Your task to perform on an android device: add a label to a message in the gmail app Image 0: 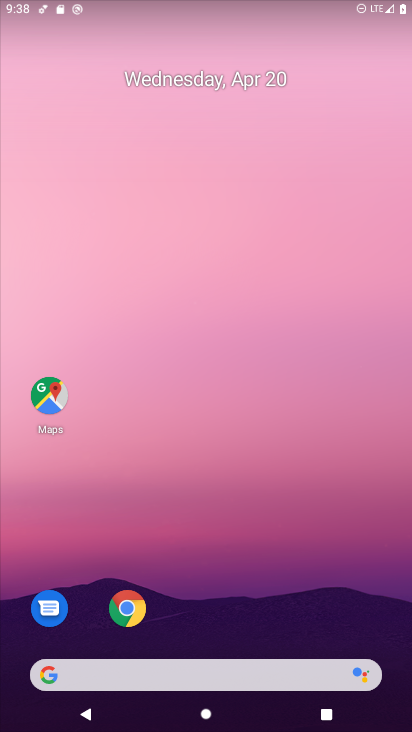
Step 0: drag from (194, 626) to (291, 3)
Your task to perform on an android device: add a label to a message in the gmail app Image 1: 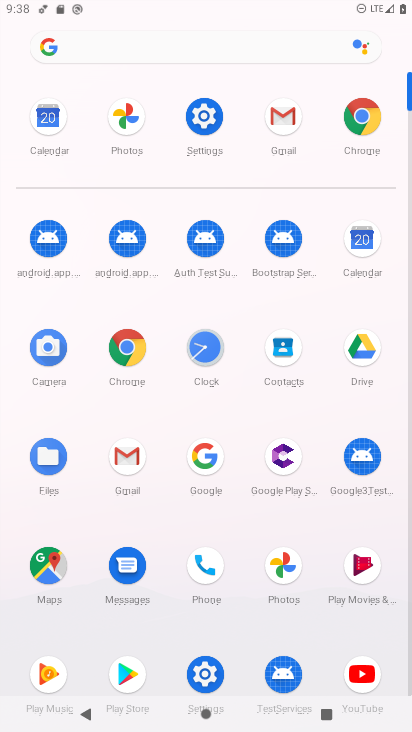
Step 1: click (129, 449)
Your task to perform on an android device: add a label to a message in the gmail app Image 2: 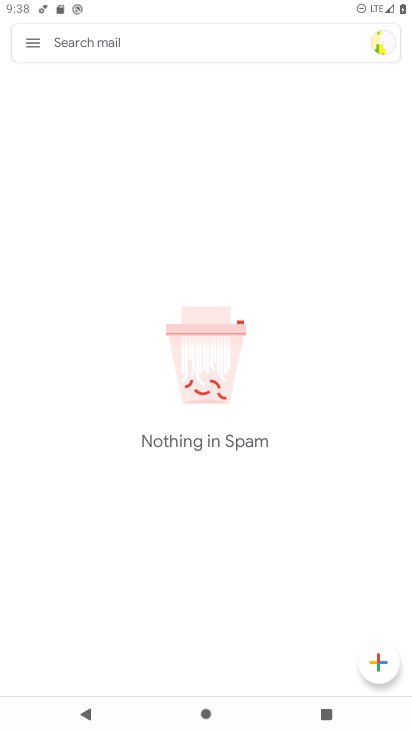
Step 2: click (36, 42)
Your task to perform on an android device: add a label to a message in the gmail app Image 3: 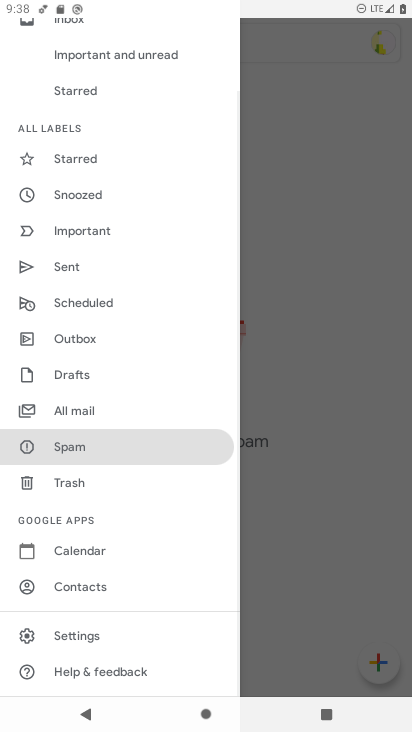
Step 3: click (93, 411)
Your task to perform on an android device: add a label to a message in the gmail app Image 4: 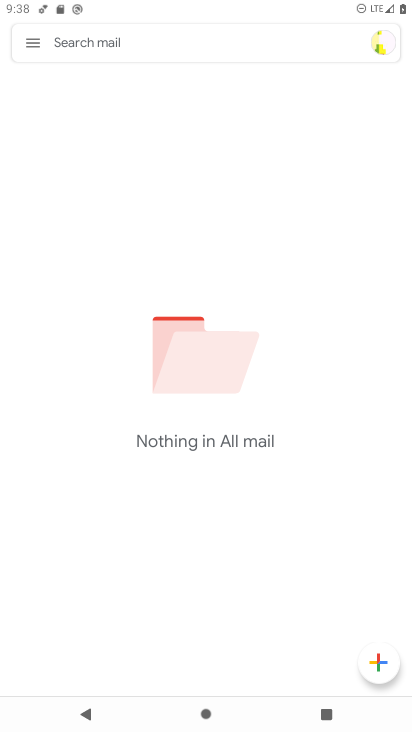
Step 4: task complete